Your task to perform on an android device: Play the last video I watched on Youtube Image 0: 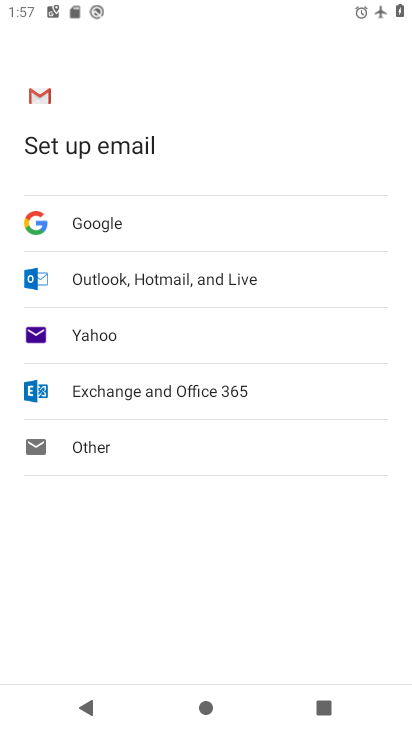
Step 0: press home button
Your task to perform on an android device: Play the last video I watched on Youtube Image 1: 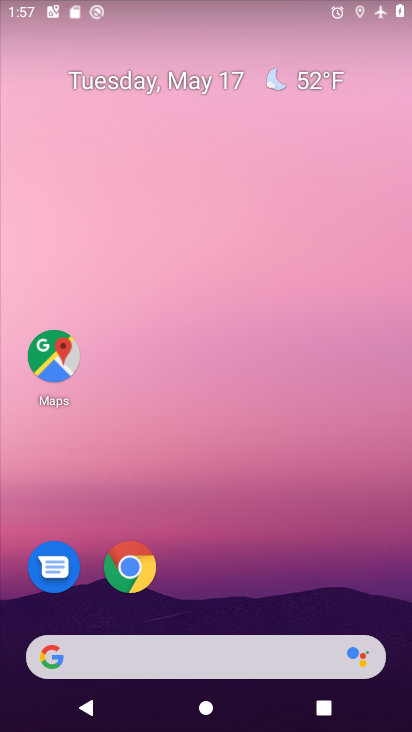
Step 1: click (354, 73)
Your task to perform on an android device: Play the last video I watched on Youtube Image 2: 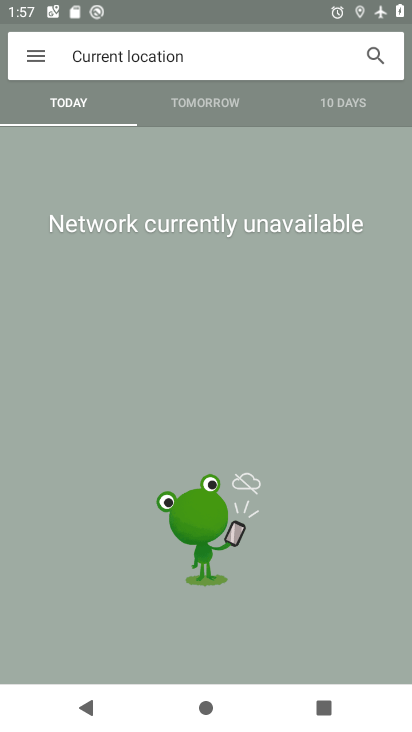
Step 2: drag from (272, 573) to (319, 158)
Your task to perform on an android device: Play the last video I watched on Youtube Image 3: 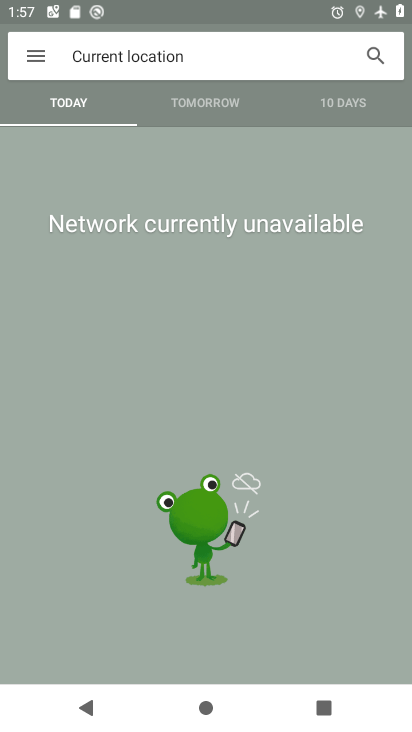
Step 3: press back button
Your task to perform on an android device: Play the last video I watched on Youtube Image 4: 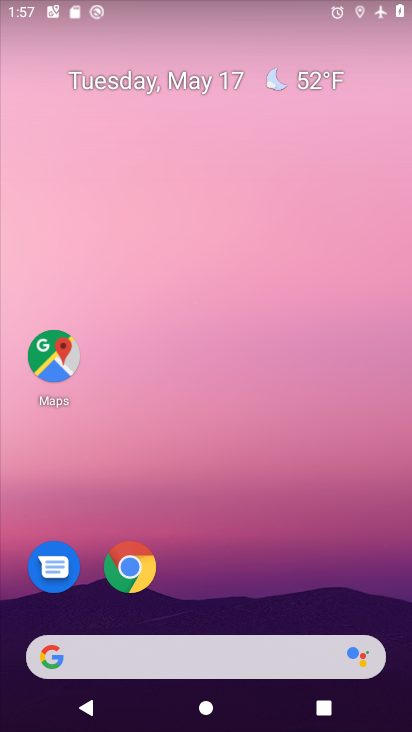
Step 4: drag from (321, 200) to (390, 93)
Your task to perform on an android device: Play the last video I watched on Youtube Image 5: 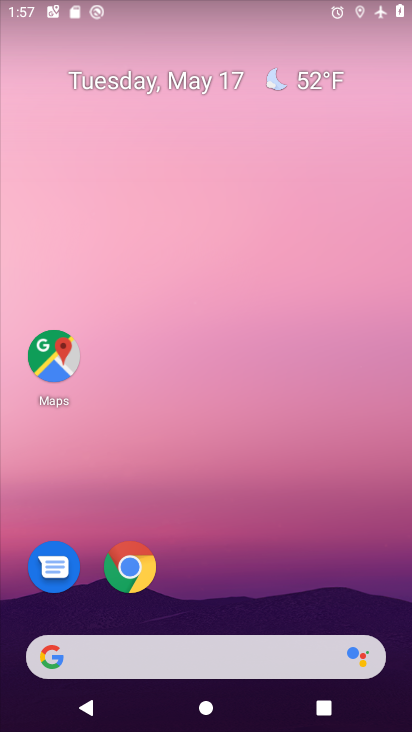
Step 5: drag from (264, 171) to (286, 63)
Your task to perform on an android device: Play the last video I watched on Youtube Image 6: 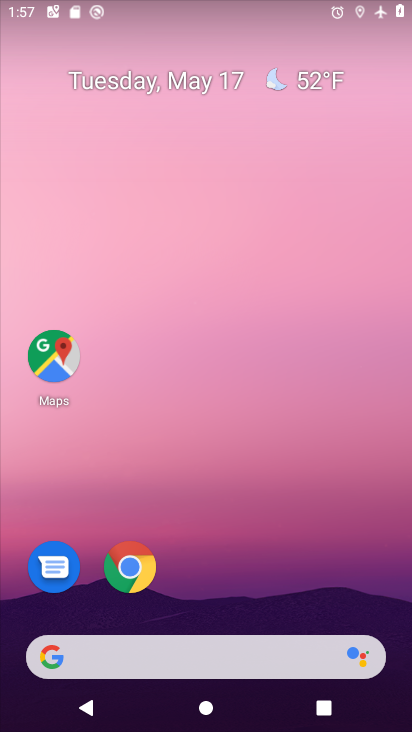
Step 6: drag from (199, 592) to (192, 11)
Your task to perform on an android device: Play the last video I watched on Youtube Image 7: 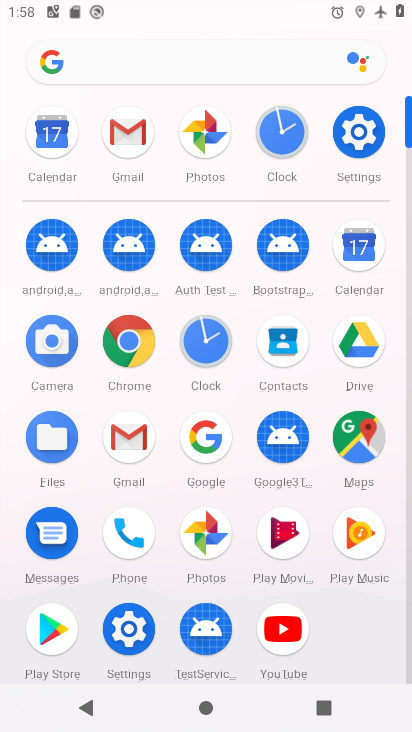
Step 7: click (273, 648)
Your task to perform on an android device: Play the last video I watched on Youtube Image 8: 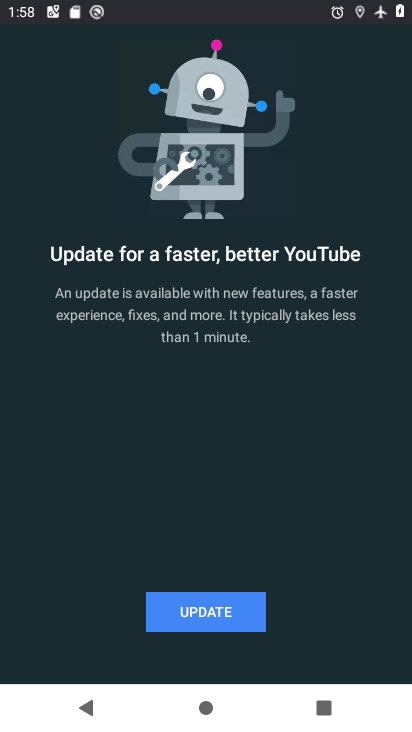
Step 8: click (198, 622)
Your task to perform on an android device: Play the last video I watched on Youtube Image 9: 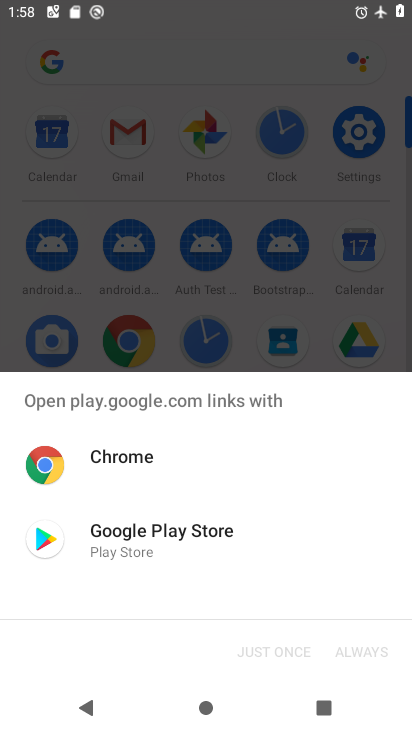
Step 9: click (79, 560)
Your task to perform on an android device: Play the last video I watched on Youtube Image 10: 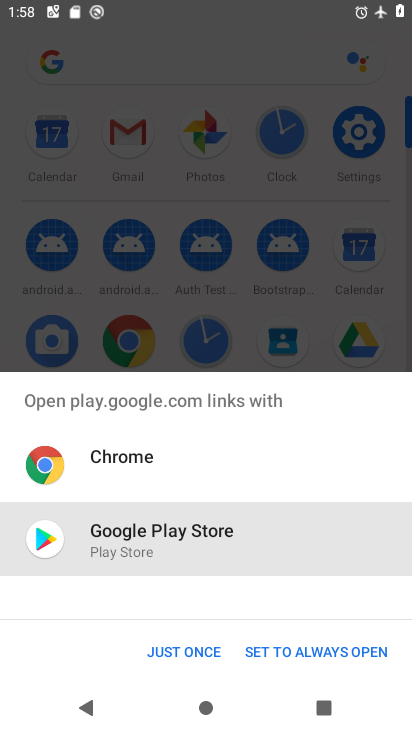
Step 10: click (290, 659)
Your task to perform on an android device: Play the last video I watched on Youtube Image 11: 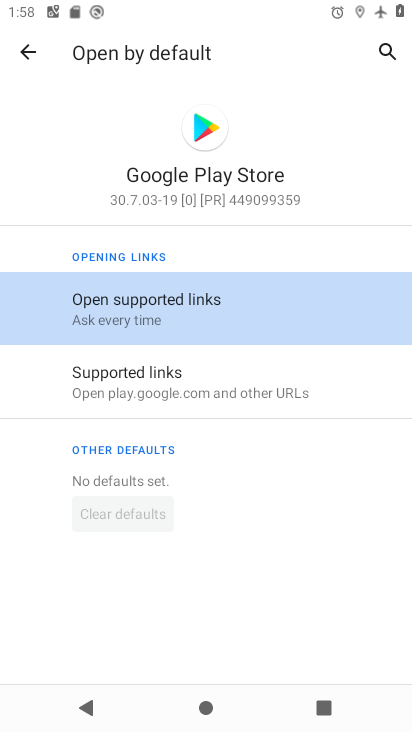
Step 11: click (152, 305)
Your task to perform on an android device: Play the last video I watched on Youtube Image 12: 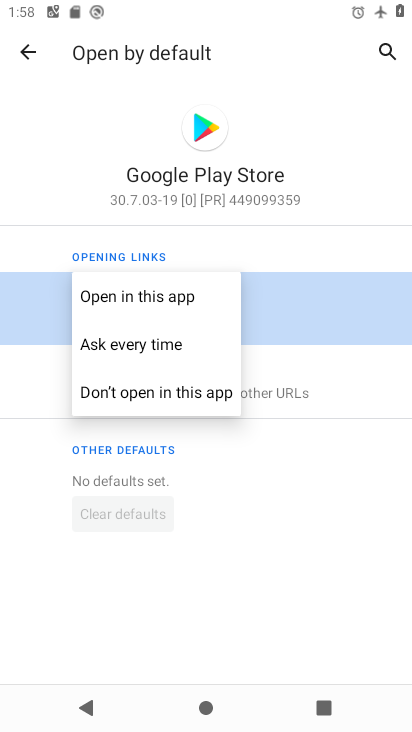
Step 12: click (102, 298)
Your task to perform on an android device: Play the last video I watched on Youtube Image 13: 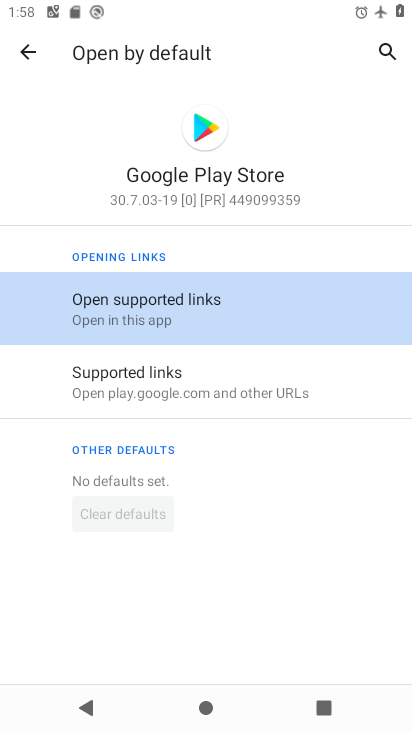
Step 13: click (24, 50)
Your task to perform on an android device: Play the last video I watched on Youtube Image 14: 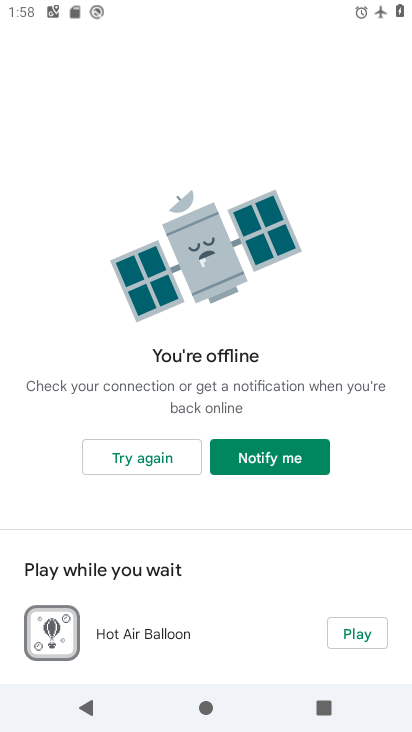
Step 14: task complete